Your task to perform on an android device: turn on airplane mode Image 0: 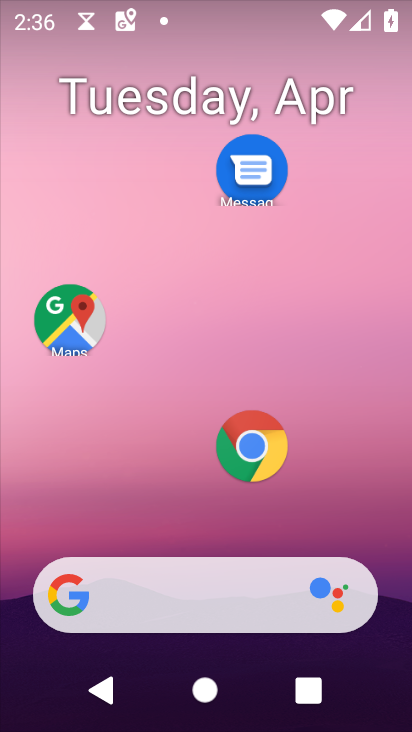
Step 0: drag from (189, 428) to (187, 0)
Your task to perform on an android device: turn on airplane mode Image 1: 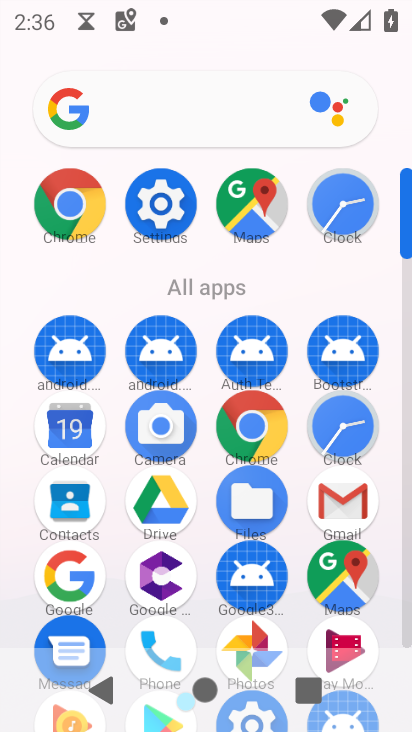
Step 1: click (147, 214)
Your task to perform on an android device: turn on airplane mode Image 2: 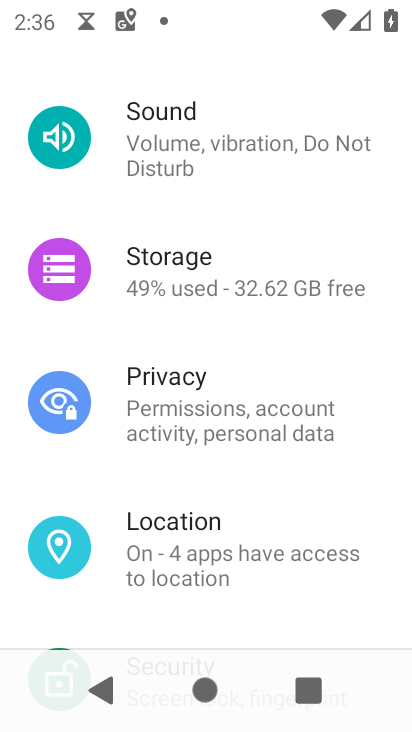
Step 2: drag from (209, 139) to (223, 616)
Your task to perform on an android device: turn on airplane mode Image 3: 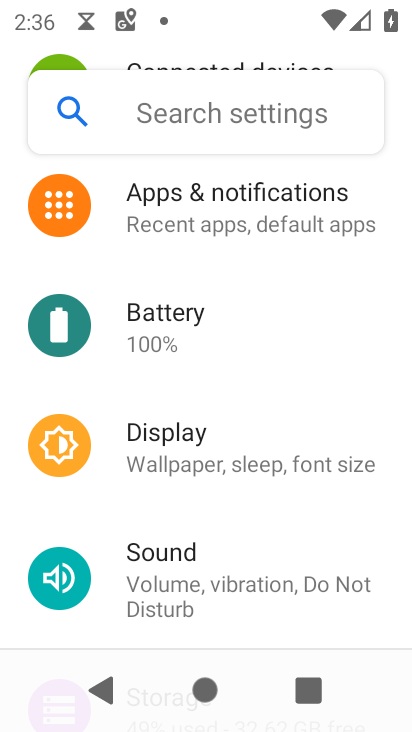
Step 3: drag from (257, 255) to (236, 654)
Your task to perform on an android device: turn on airplane mode Image 4: 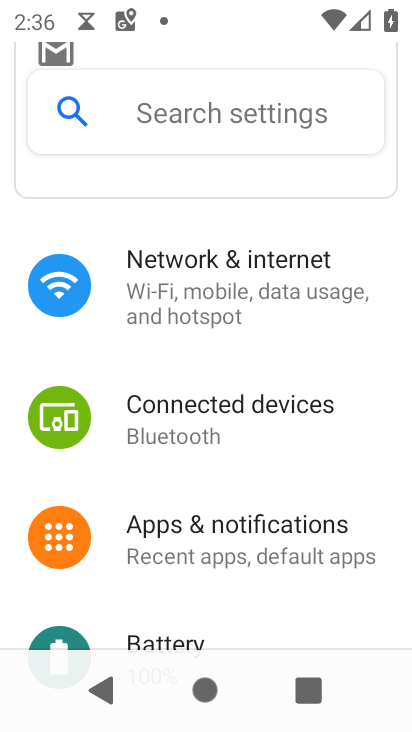
Step 4: click (222, 296)
Your task to perform on an android device: turn on airplane mode Image 5: 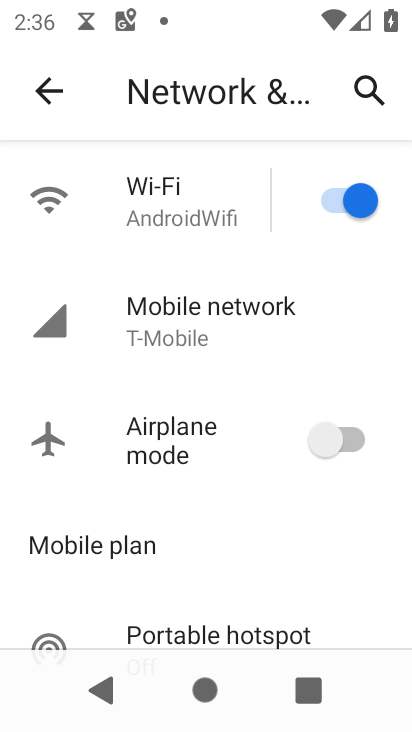
Step 5: click (327, 445)
Your task to perform on an android device: turn on airplane mode Image 6: 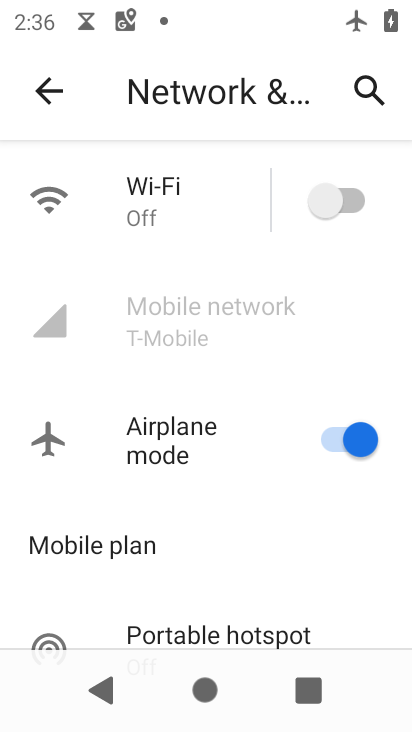
Step 6: task complete